Your task to perform on an android device: turn off notifications settings in the gmail app Image 0: 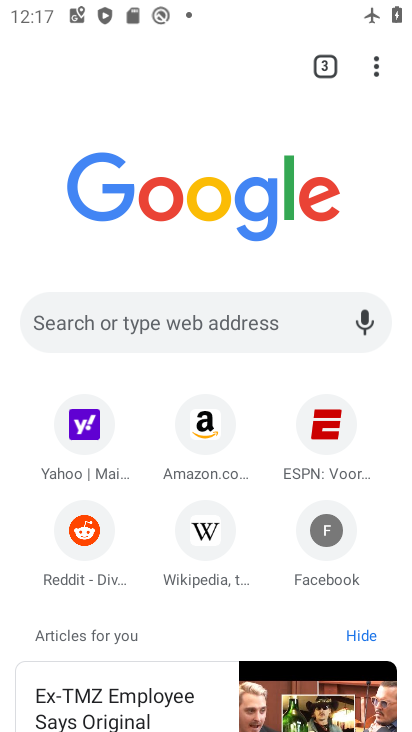
Step 0: press home button
Your task to perform on an android device: turn off notifications settings in the gmail app Image 1: 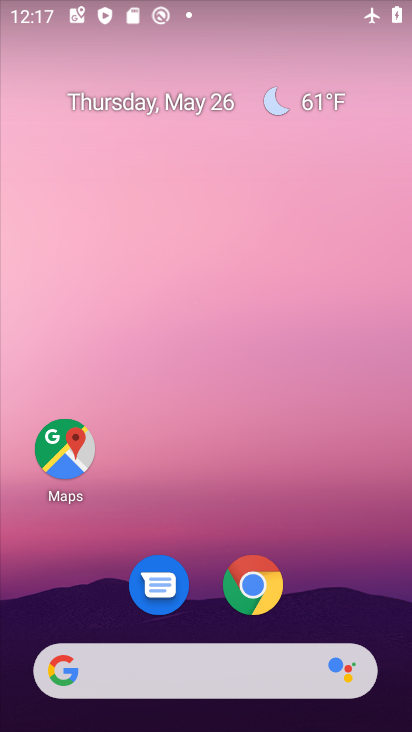
Step 1: drag from (193, 499) to (213, 20)
Your task to perform on an android device: turn off notifications settings in the gmail app Image 2: 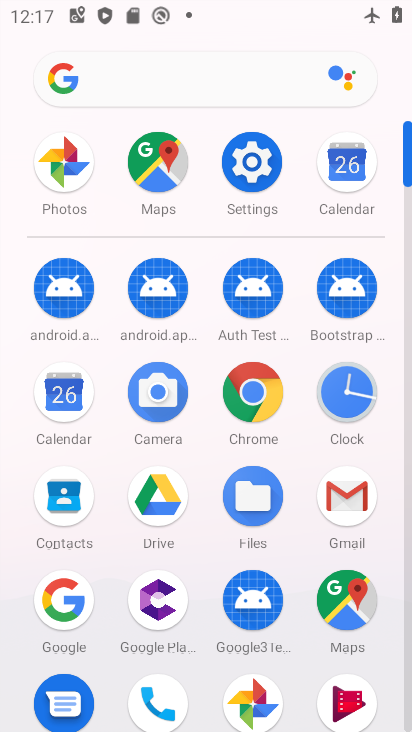
Step 2: click (342, 500)
Your task to perform on an android device: turn off notifications settings in the gmail app Image 3: 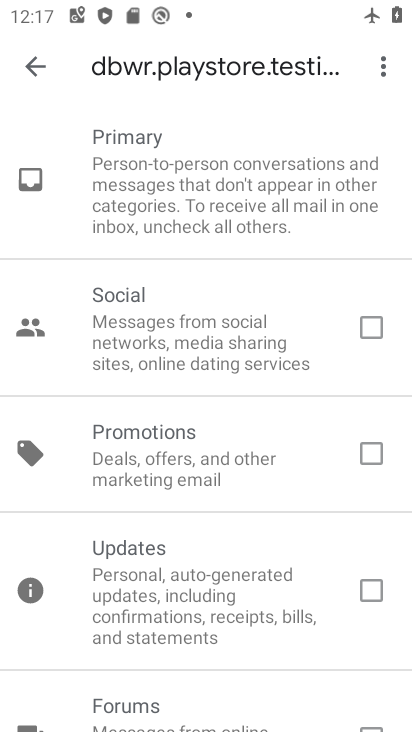
Step 3: click (38, 68)
Your task to perform on an android device: turn off notifications settings in the gmail app Image 4: 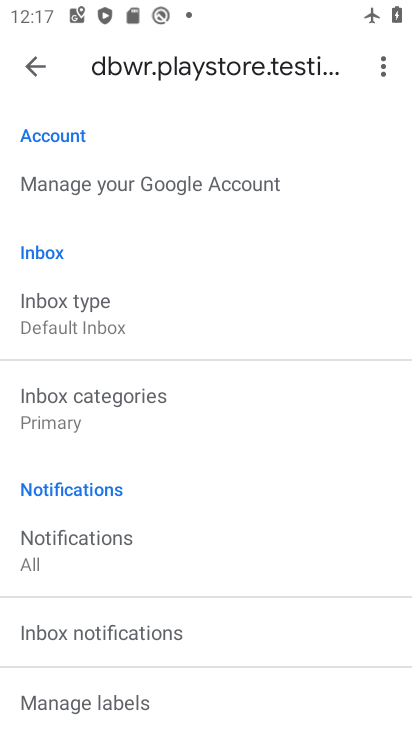
Step 4: drag from (178, 576) to (256, 213)
Your task to perform on an android device: turn off notifications settings in the gmail app Image 5: 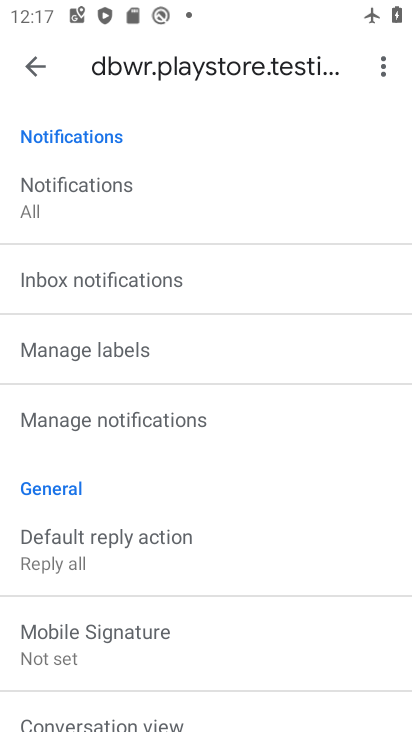
Step 5: click (255, 417)
Your task to perform on an android device: turn off notifications settings in the gmail app Image 6: 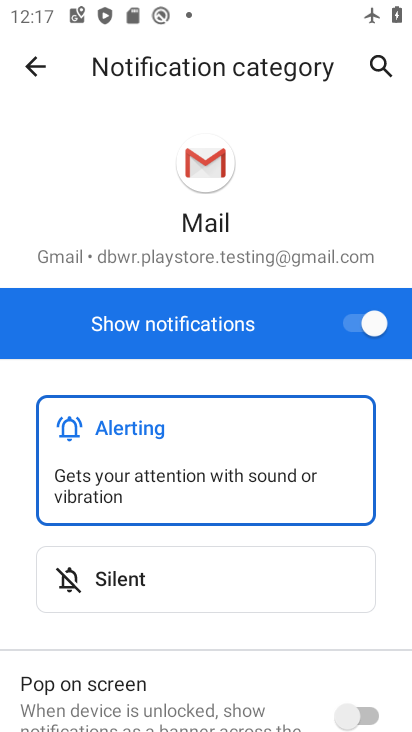
Step 6: click (350, 326)
Your task to perform on an android device: turn off notifications settings in the gmail app Image 7: 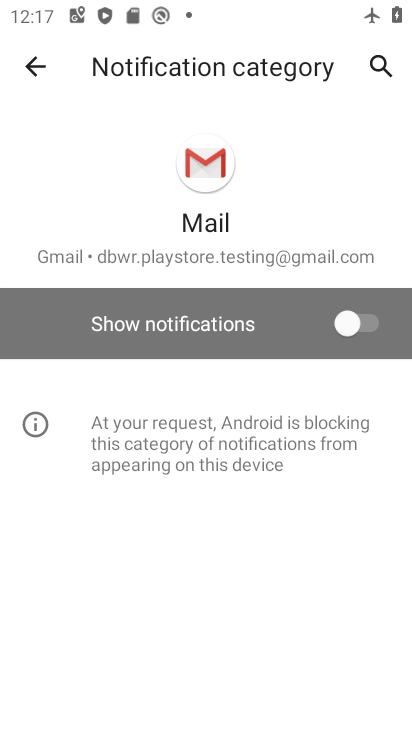
Step 7: task complete